Your task to perform on an android device: change notifications settings Image 0: 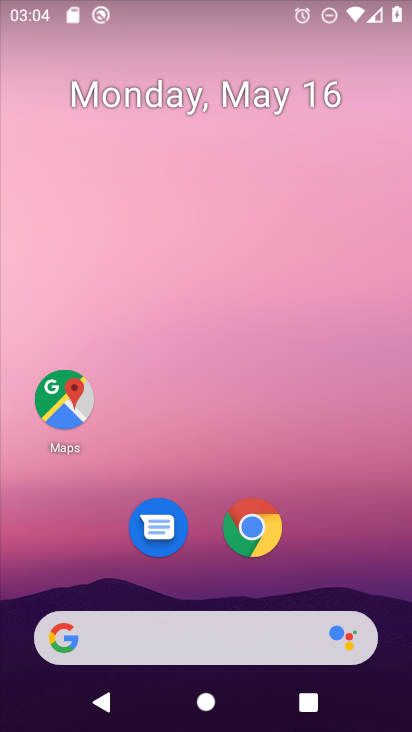
Step 0: drag from (292, 450) to (267, 132)
Your task to perform on an android device: change notifications settings Image 1: 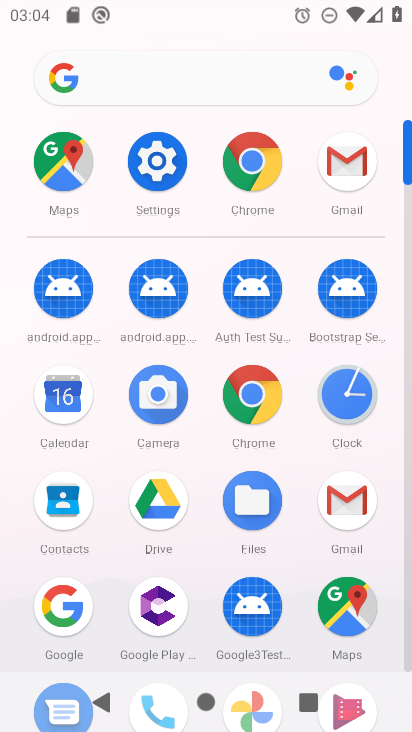
Step 1: click (163, 190)
Your task to perform on an android device: change notifications settings Image 2: 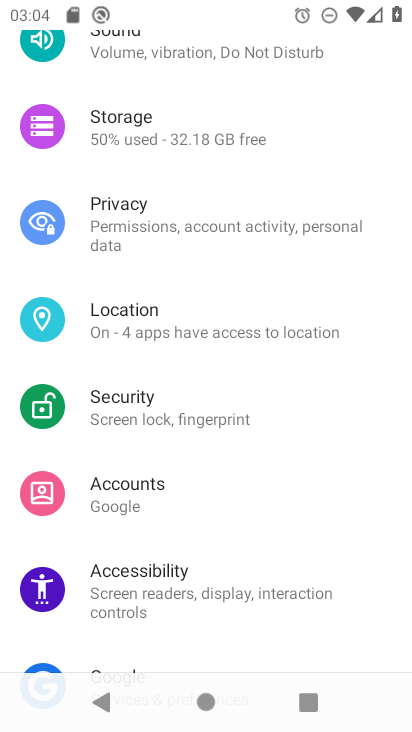
Step 2: drag from (158, 551) to (186, 365)
Your task to perform on an android device: change notifications settings Image 3: 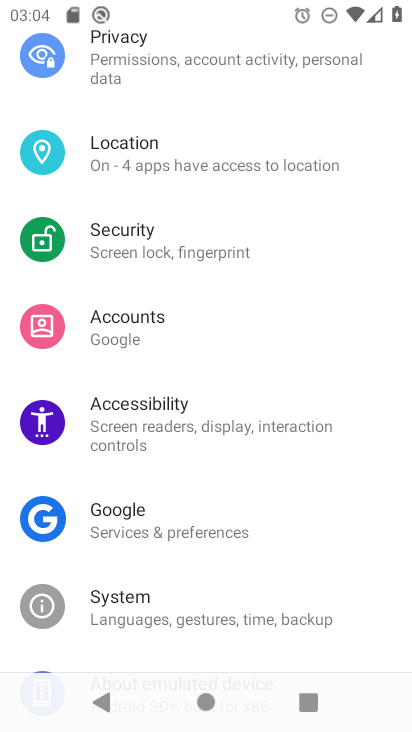
Step 3: drag from (177, 185) to (203, 492)
Your task to perform on an android device: change notifications settings Image 4: 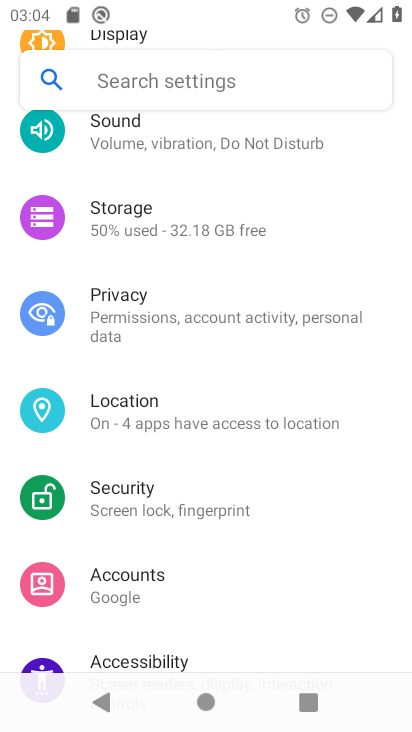
Step 4: drag from (195, 145) to (214, 477)
Your task to perform on an android device: change notifications settings Image 5: 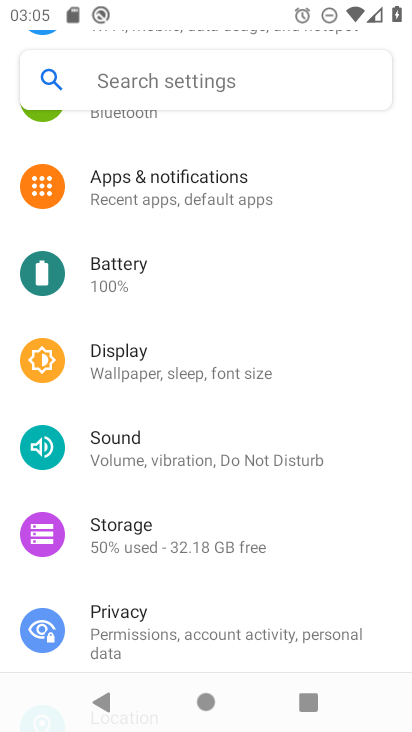
Step 5: click (191, 199)
Your task to perform on an android device: change notifications settings Image 6: 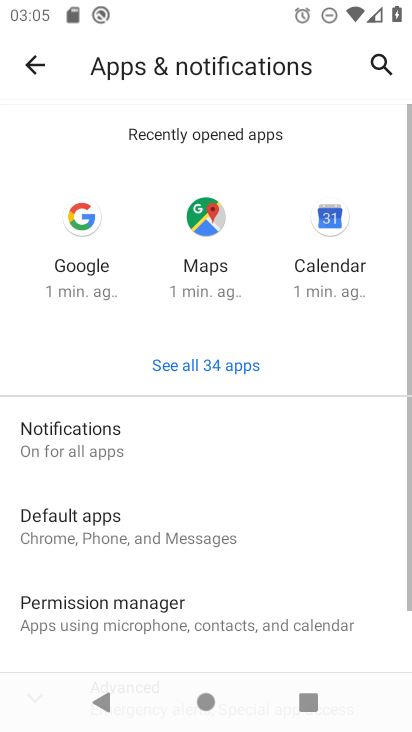
Step 6: drag from (167, 511) to (187, 305)
Your task to perform on an android device: change notifications settings Image 7: 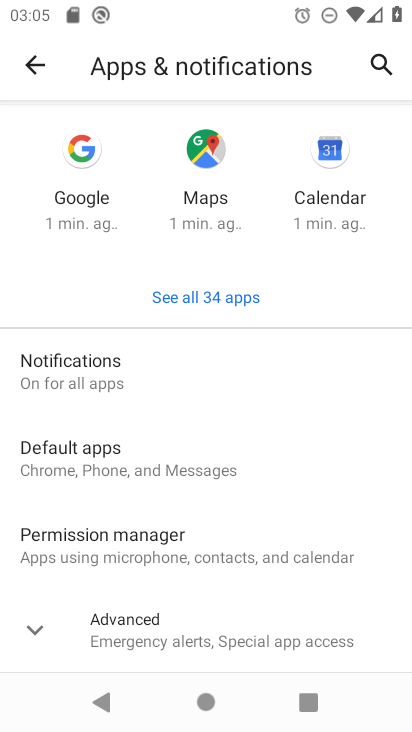
Step 7: click (169, 381)
Your task to perform on an android device: change notifications settings Image 8: 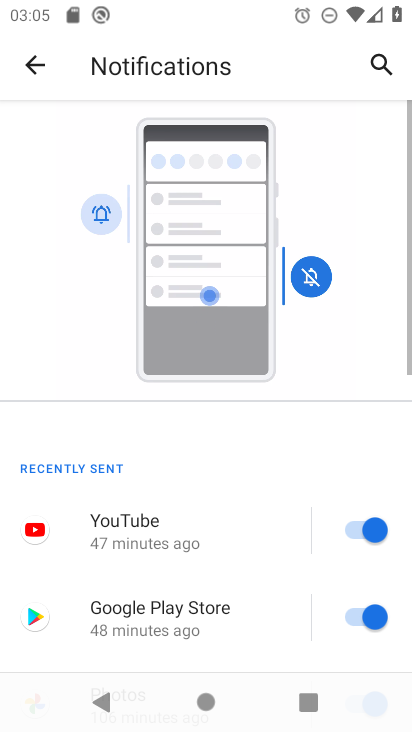
Step 8: drag from (177, 591) to (229, 245)
Your task to perform on an android device: change notifications settings Image 9: 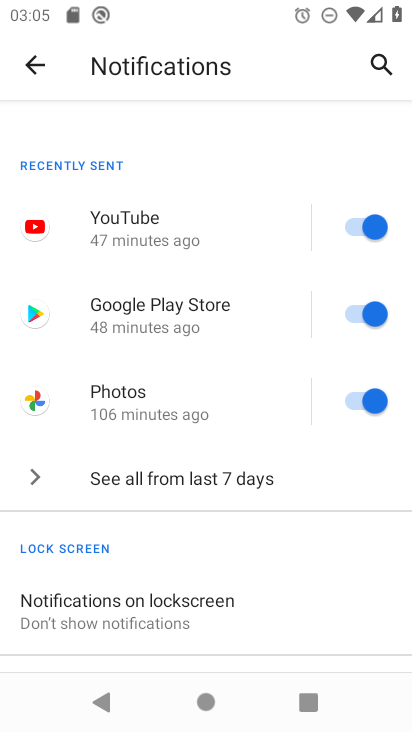
Step 9: drag from (178, 536) to (200, 324)
Your task to perform on an android device: change notifications settings Image 10: 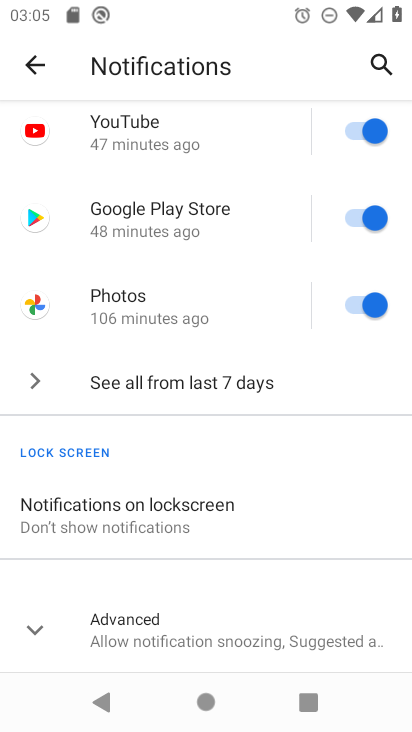
Step 10: click (199, 627)
Your task to perform on an android device: change notifications settings Image 11: 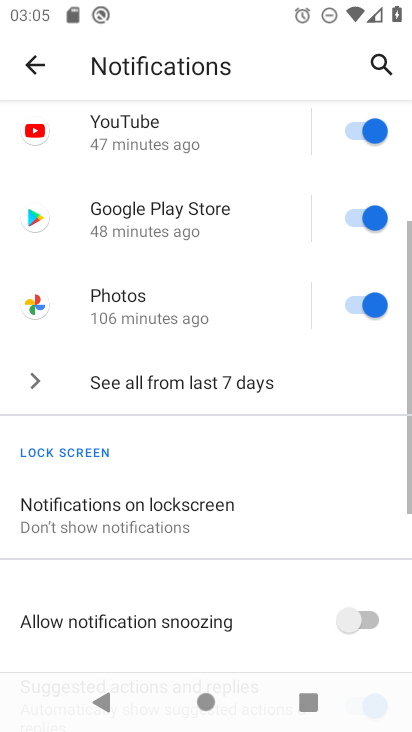
Step 11: drag from (199, 627) to (218, 440)
Your task to perform on an android device: change notifications settings Image 12: 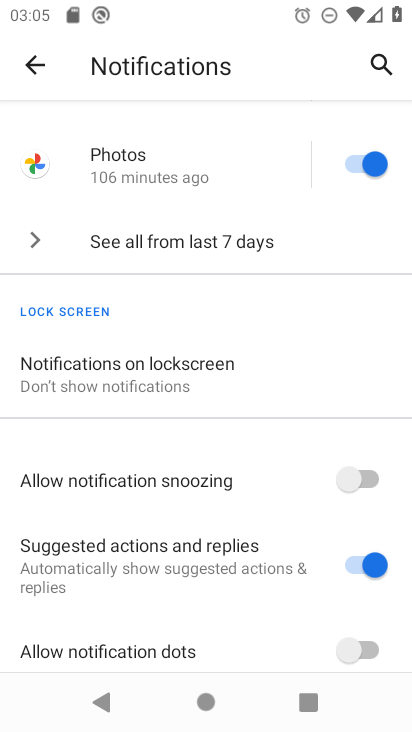
Step 12: click (352, 496)
Your task to perform on an android device: change notifications settings Image 13: 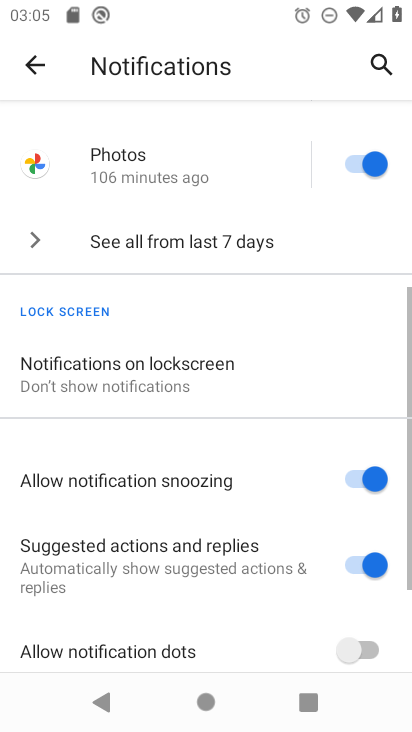
Step 13: task complete